Your task to perform on an android device: delete location history Image 0: 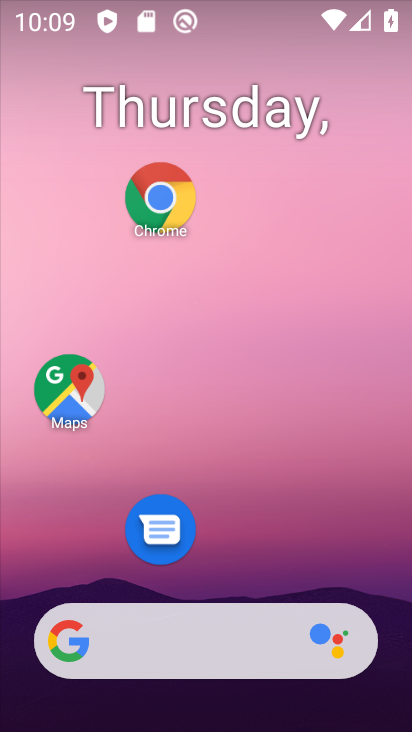
Step 0: click (78, 397)
Your task to perform on an android device: delete location history Image 1: 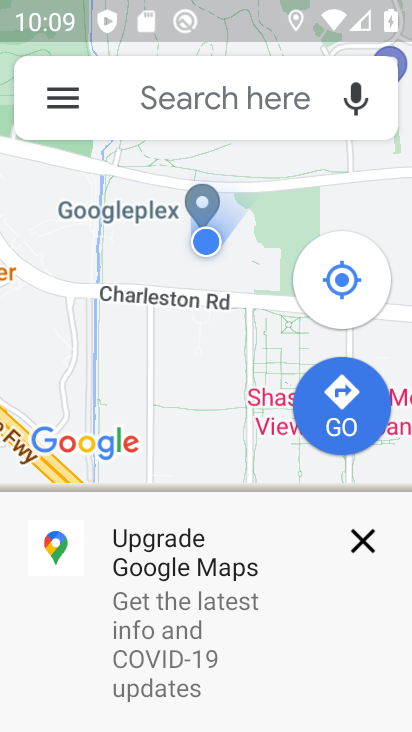
Step 1: click (49, 97)
Your task to perform on an android device: delete location history Image 2: 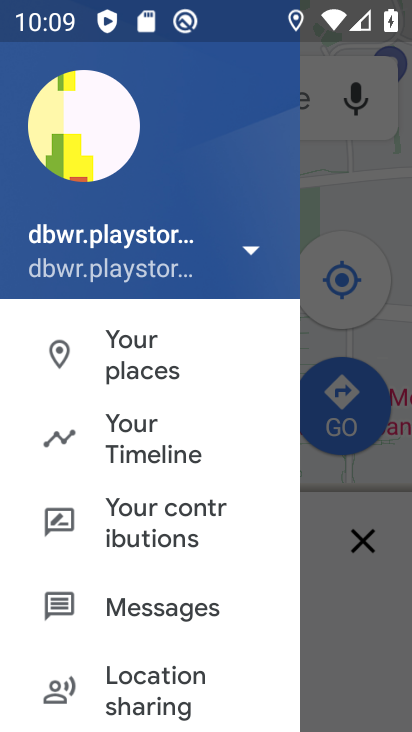
Step 2: click (155, 425)
Your task to perform on an android device: delete location history Image 3: 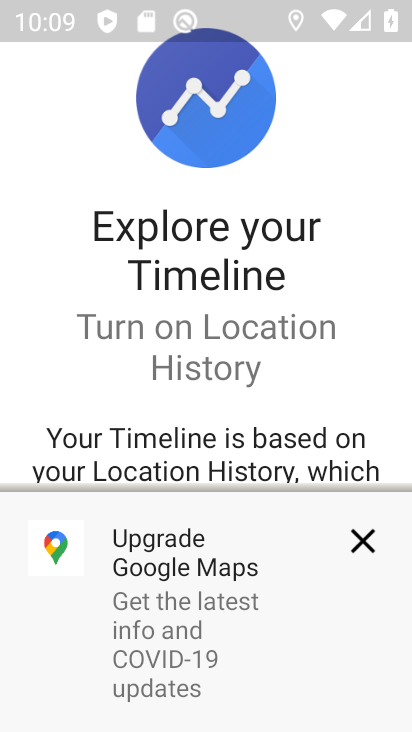
Step 3: click (358, 530)
Your task to perform on an android device: delete location history Image 4: 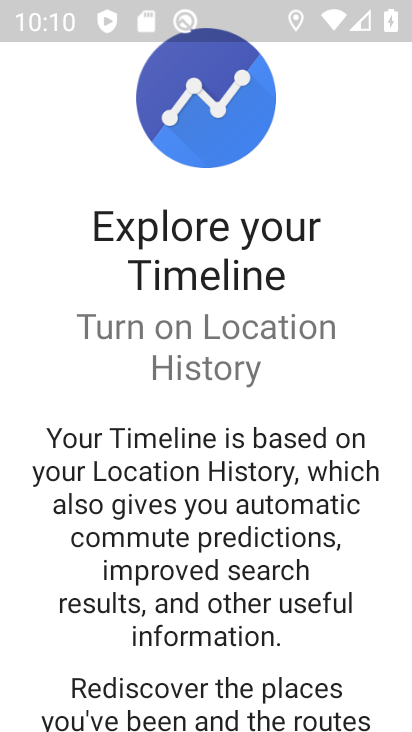
Step 4: drag from (294, 570) to (294, 279)
Your task to perform on an android device: delete location history Image 5: 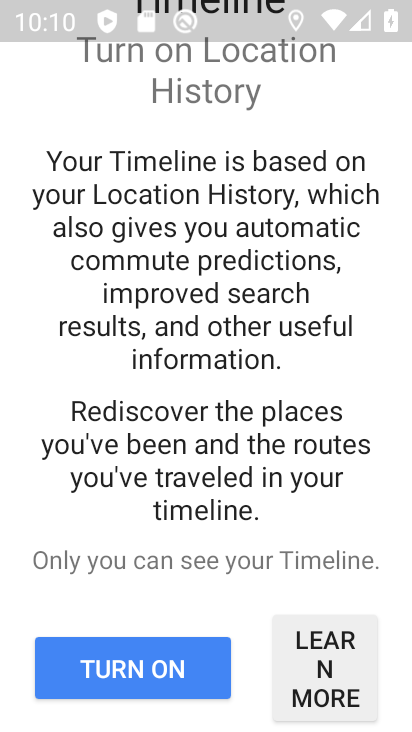
Step 5: click (165, 657)
Your task to perform on an android device: delete location history Image 6: 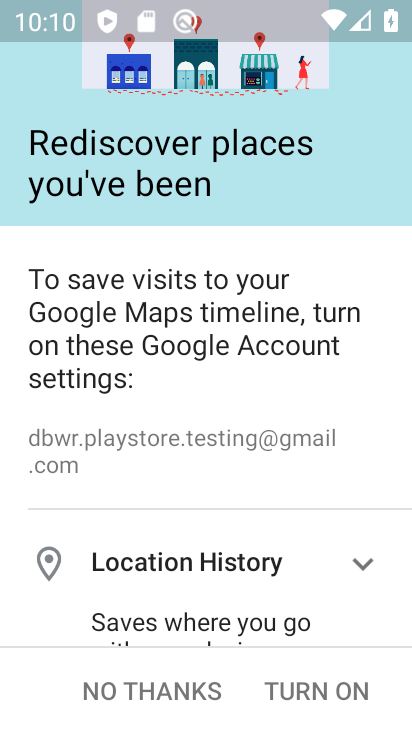
Step 6: drag from (278, 522) to (271, 227)
Your task to perform on an android device: delete location history Image 7: 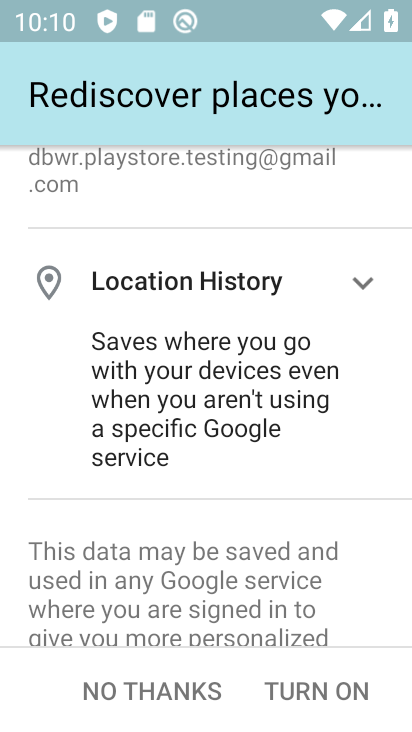
Step 7: drag from (288, 504) to (278, 238)
Your task to perform on an android device: delete location history Image 8: 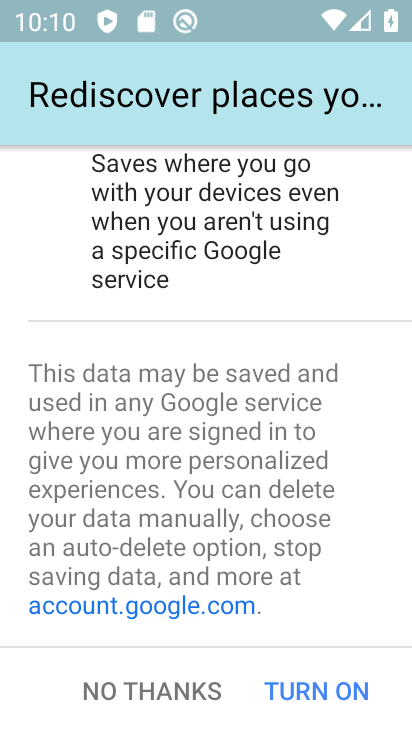
Step 8: drag from (245, 558) to (271, 398)
Your task to perform on an android device: delete location history Image 9: 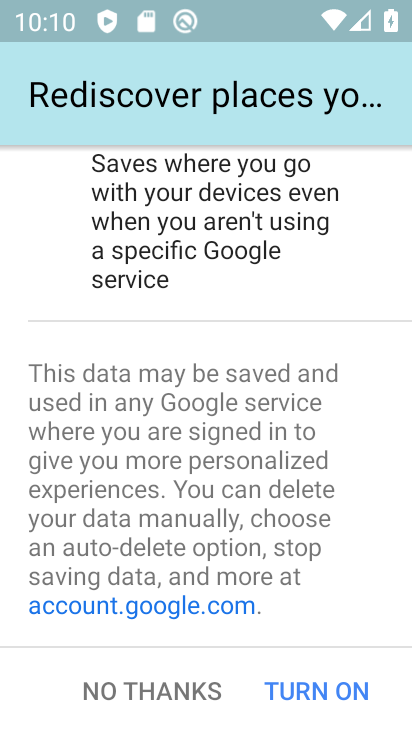
Step 9: click (298, 696)
Your task to perform on an android device: delete location history Image 10: 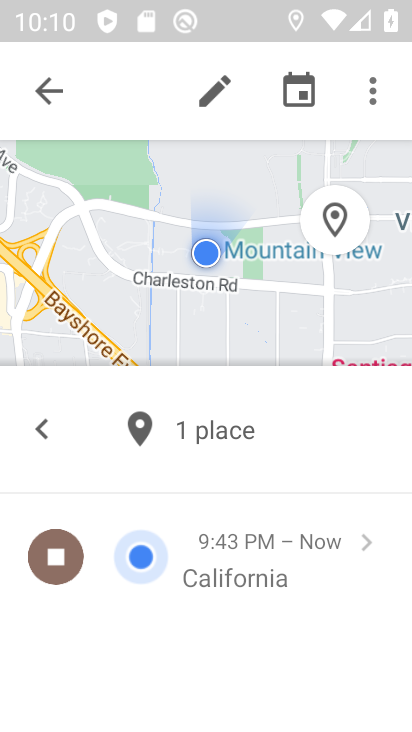
Step 10: click (370, 89)
Your task to perform on an android device: delete location history Image 11: 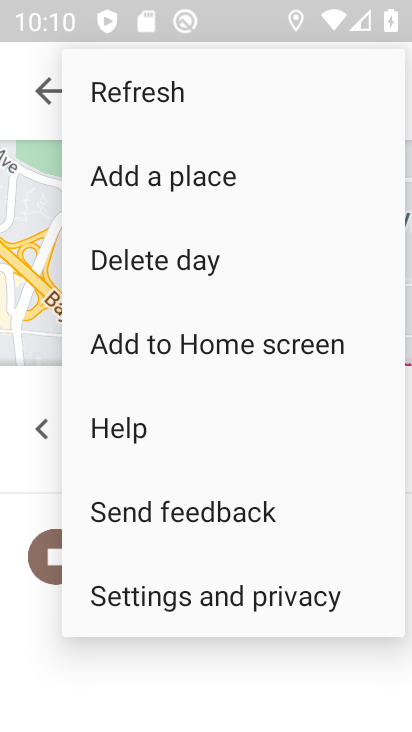
Step 11: click (229, 588)
Your task to perform on an android device: delete location history Image 12: 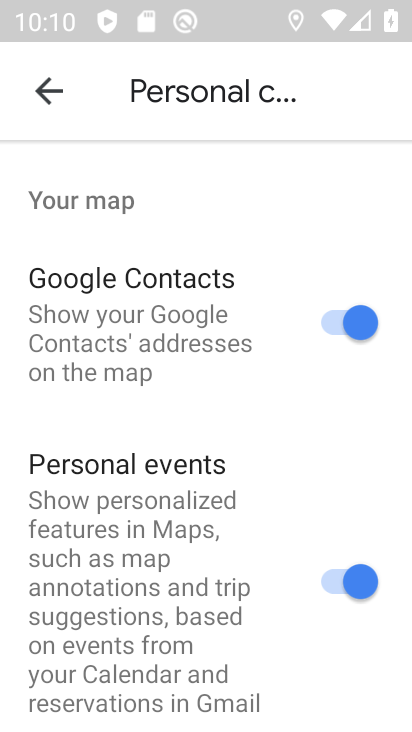
Step 12: drag from (290, 662) to (271, 305)
Your task to perform on an android device: delete location history Image 13: 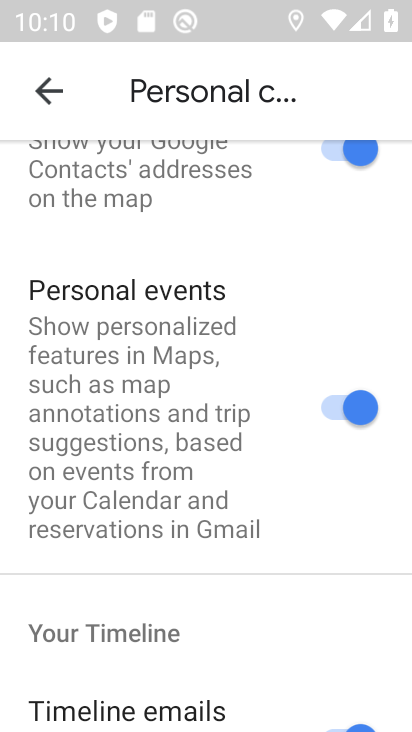
Step 13: drag from (229, 613) to (227, 133)
Your task to perform on an android device: delete location history Image 14: 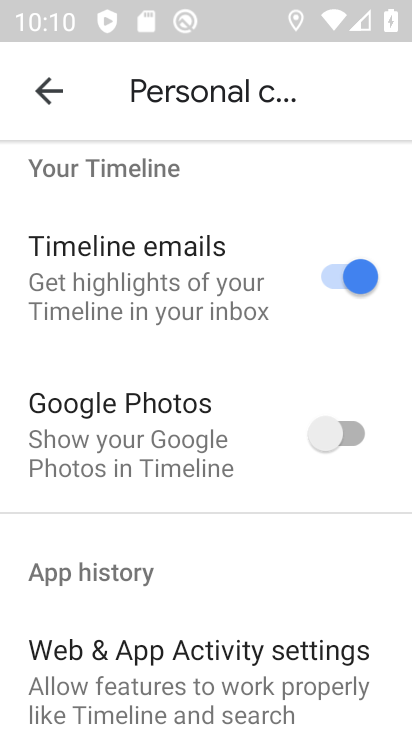
Step 14: drag from (217, 548) to (206, 252)
Your task to perform on an android device: delete location history Image 15: 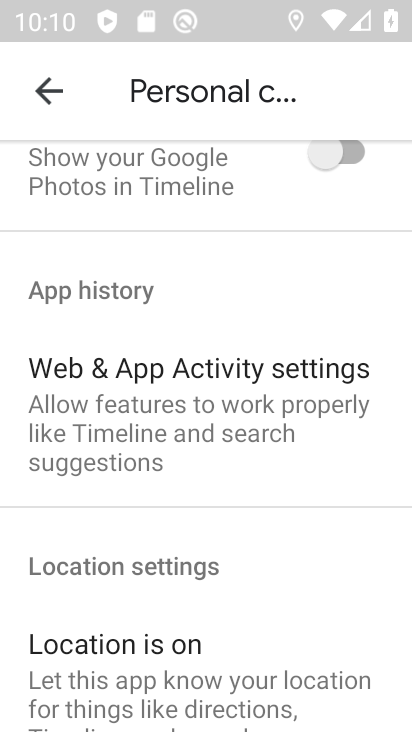
Step 15: drag from (248, 569) to (242, 255)
Your task to perform on an android device: delete location history Image 16: 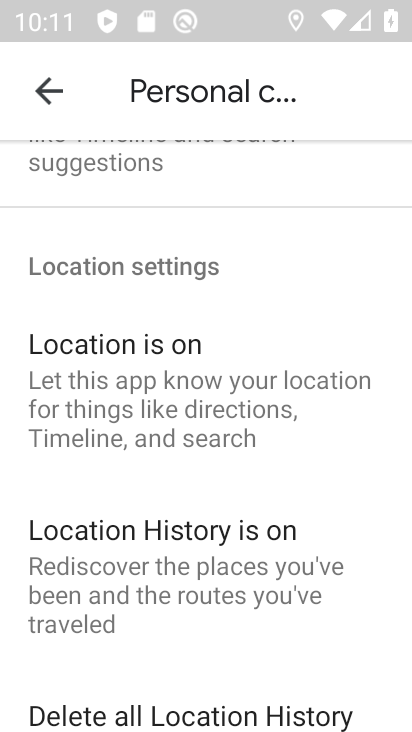
Step 16: drag from (229, 618) to (227, 349)
Your task to perform on an android device: delete location history Image 17: 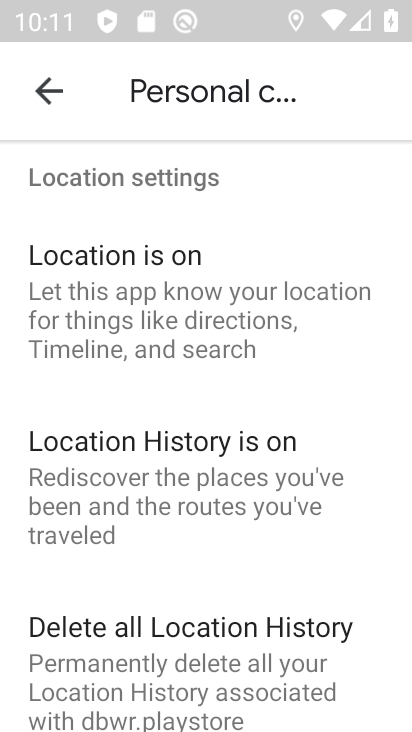
Step 17: click (194, 615)
Your task to perform on an android device: delete location history Image 18: 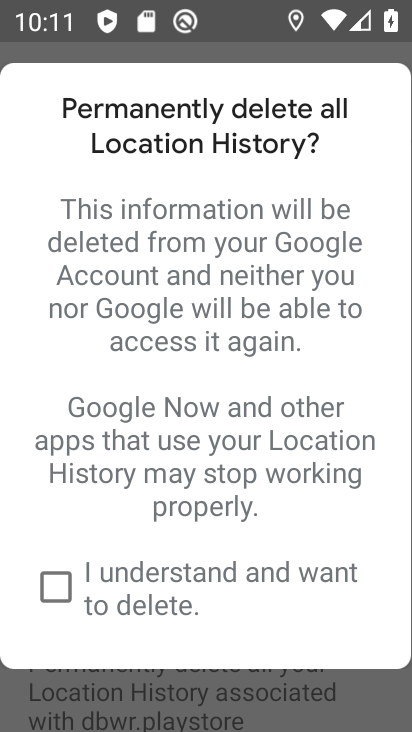
Step 18: click (60, 579)
Your task to perform on an android device: delete location history Image 19: 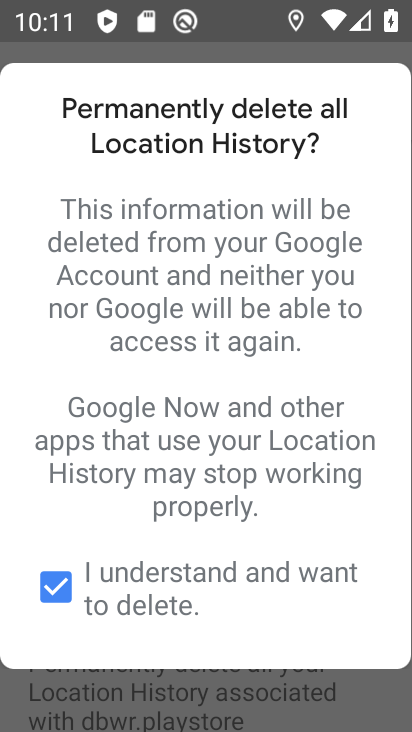
Step 19: task complete